Your task to perform on an android device: Turn off the flashlight Image 0: 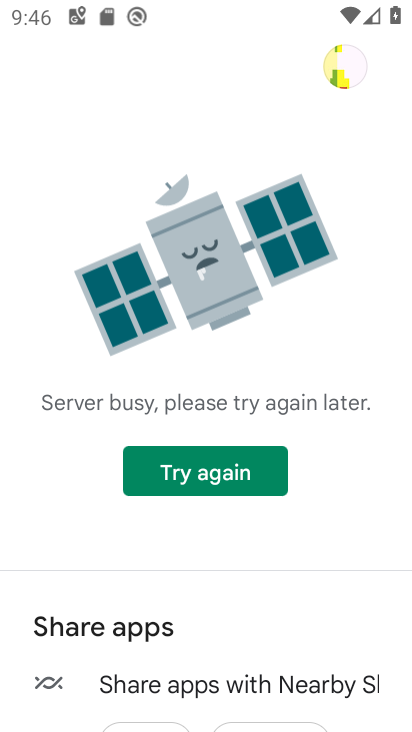
Step 0: press home button
Your task to perform on an android device: Turn off the flashlight Image 1: 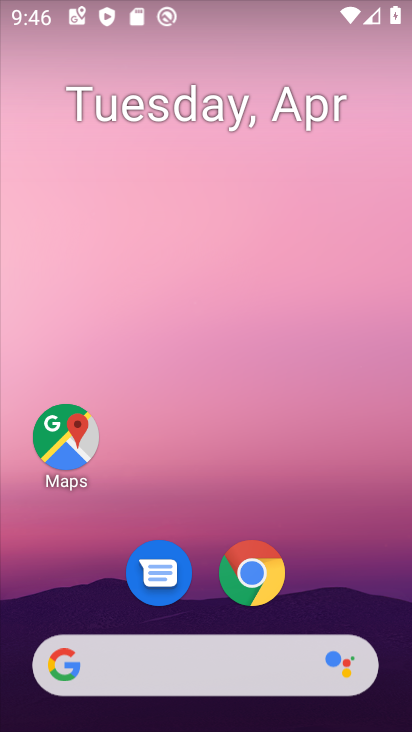
Step 1: drag from (200, 607) to (205, 121)
Your task to perform on an android device: Turn off the flashlight Image 2: 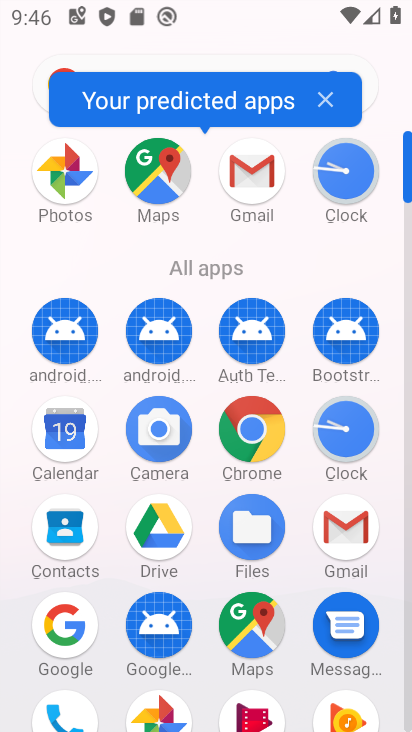
Step 2: drag from (201, 562) to (202, 246)
Your task to perform on an android device: Turn off the flashlight Image 3: 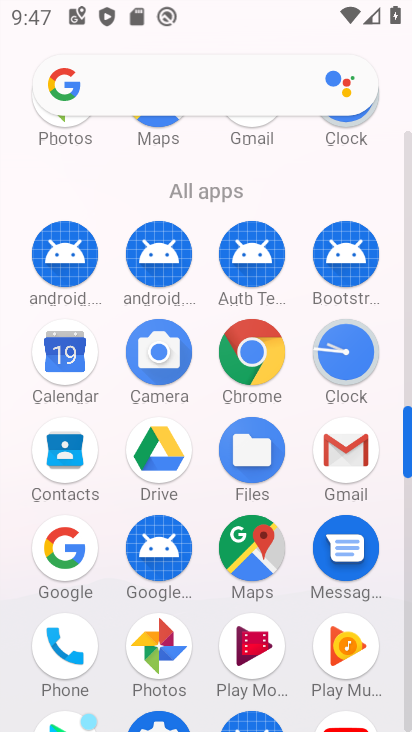
Step 3: drag from (212, 610) to (218, 334)
Your task to perform on an android device: Turn off the flashlight Image 4: 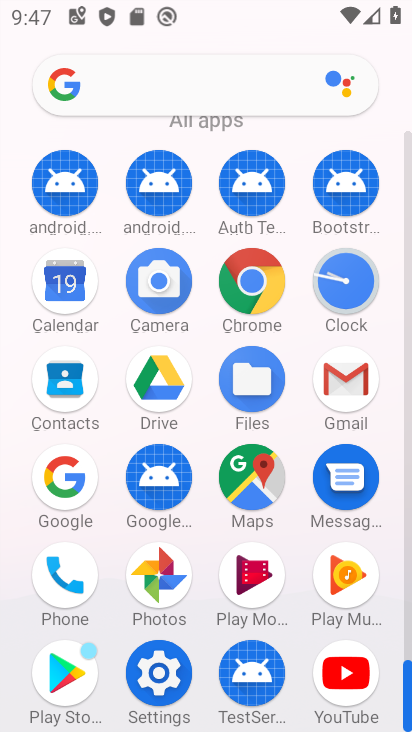
Step 4: click (158, 650)
Your task to perform on an android device: Turn off the flashlight Image 5: 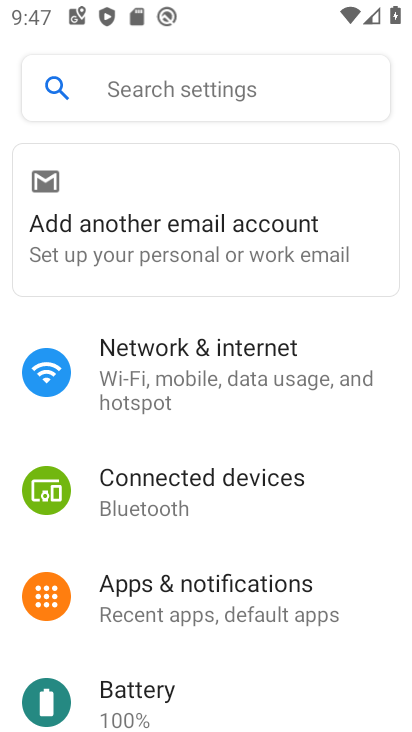
Step 5: task complete